Your task to perform on an android device: visit the assistant section in the google photos Image 0: 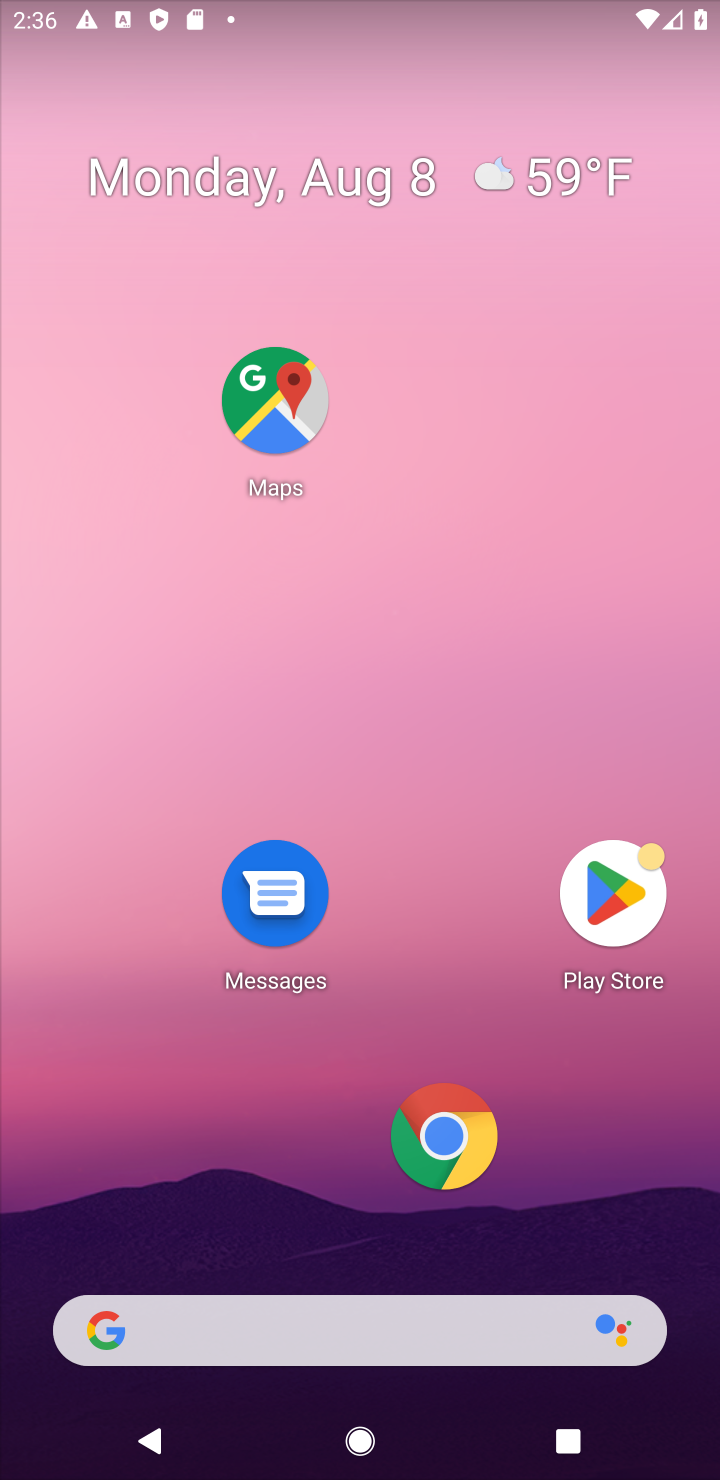
Step 0: drag from (64, 1427) to (387, 556)
Your task to perform on an android device: visit the assistant section in the google photos Image 1: 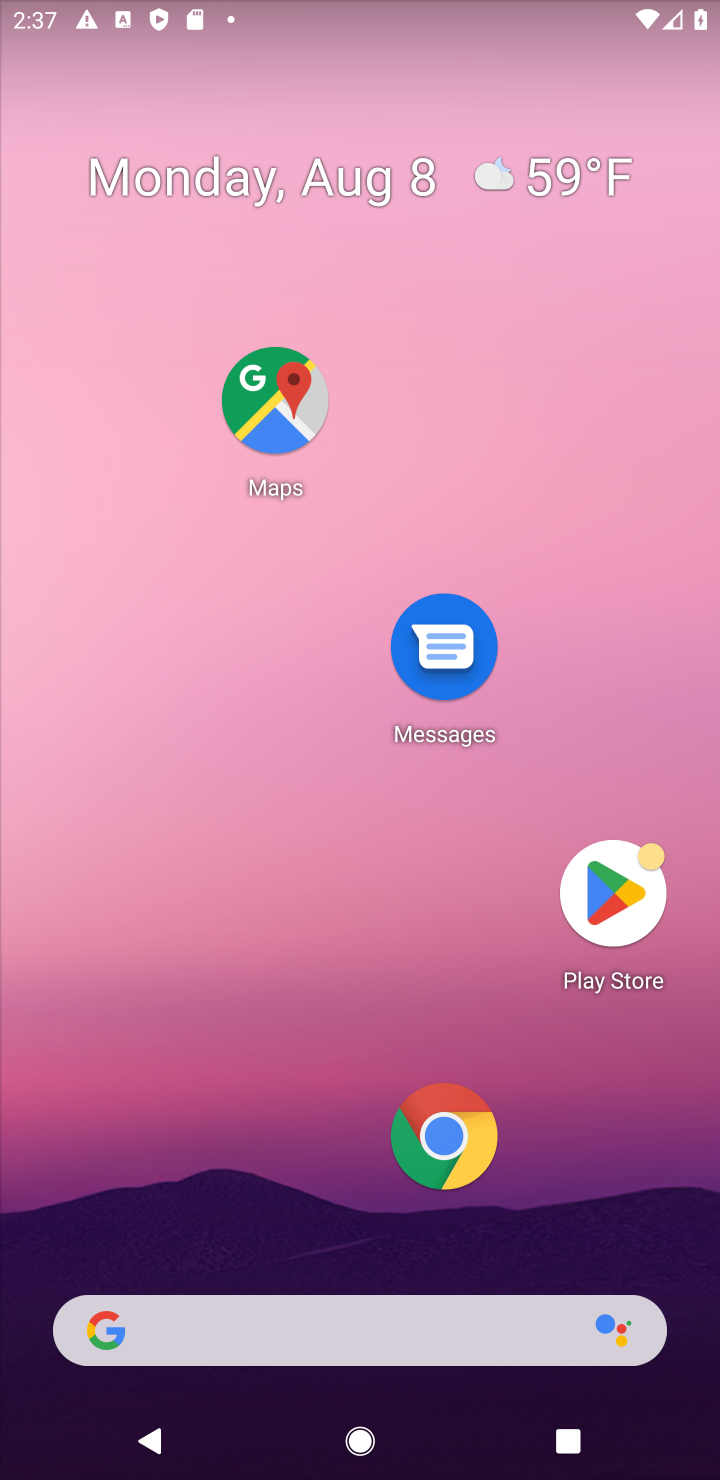
Step 1: drag from (128, 1261) to (508, 201)
Your task to perform on an android device: visit the assistant section in the google photos Image 2: 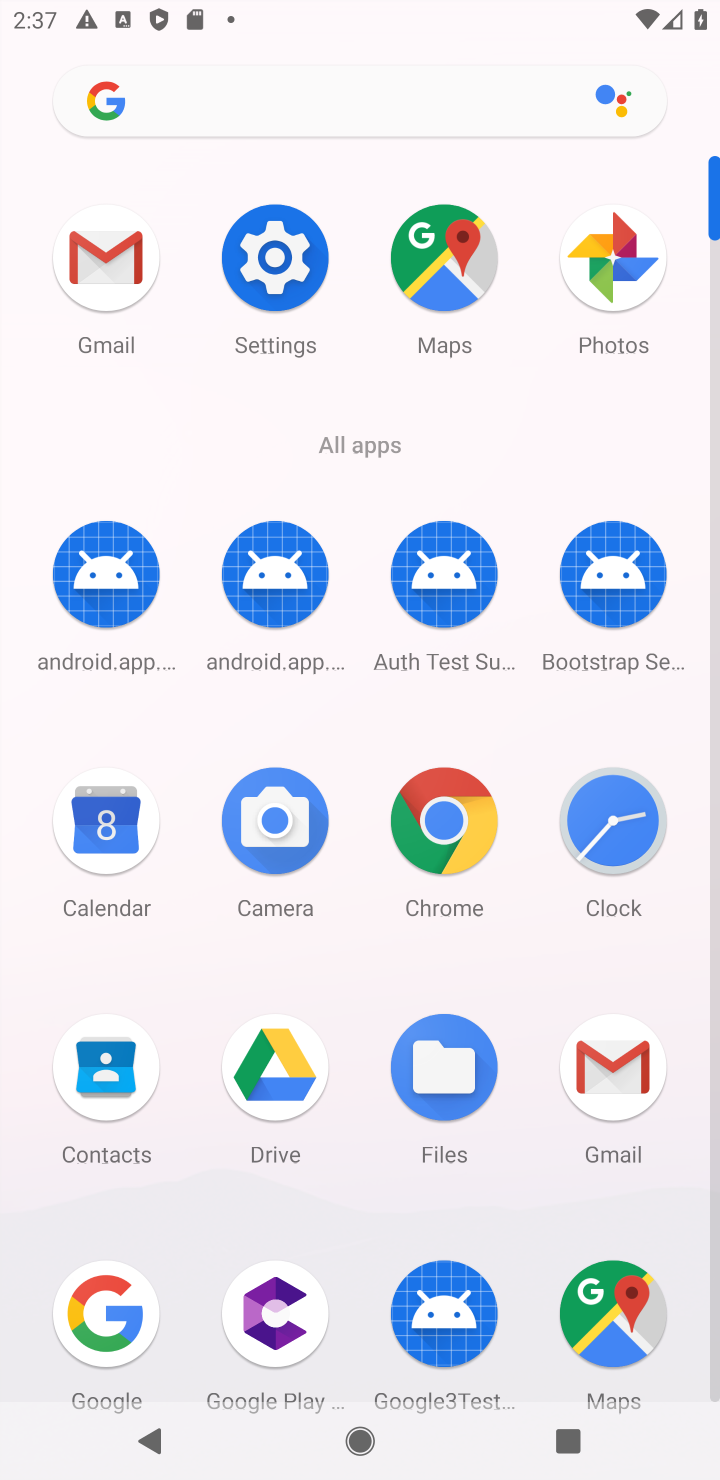
Step 2: click (605, 278)
Your task to perform on an android device: visit the assistant section in the google photos Image 3: 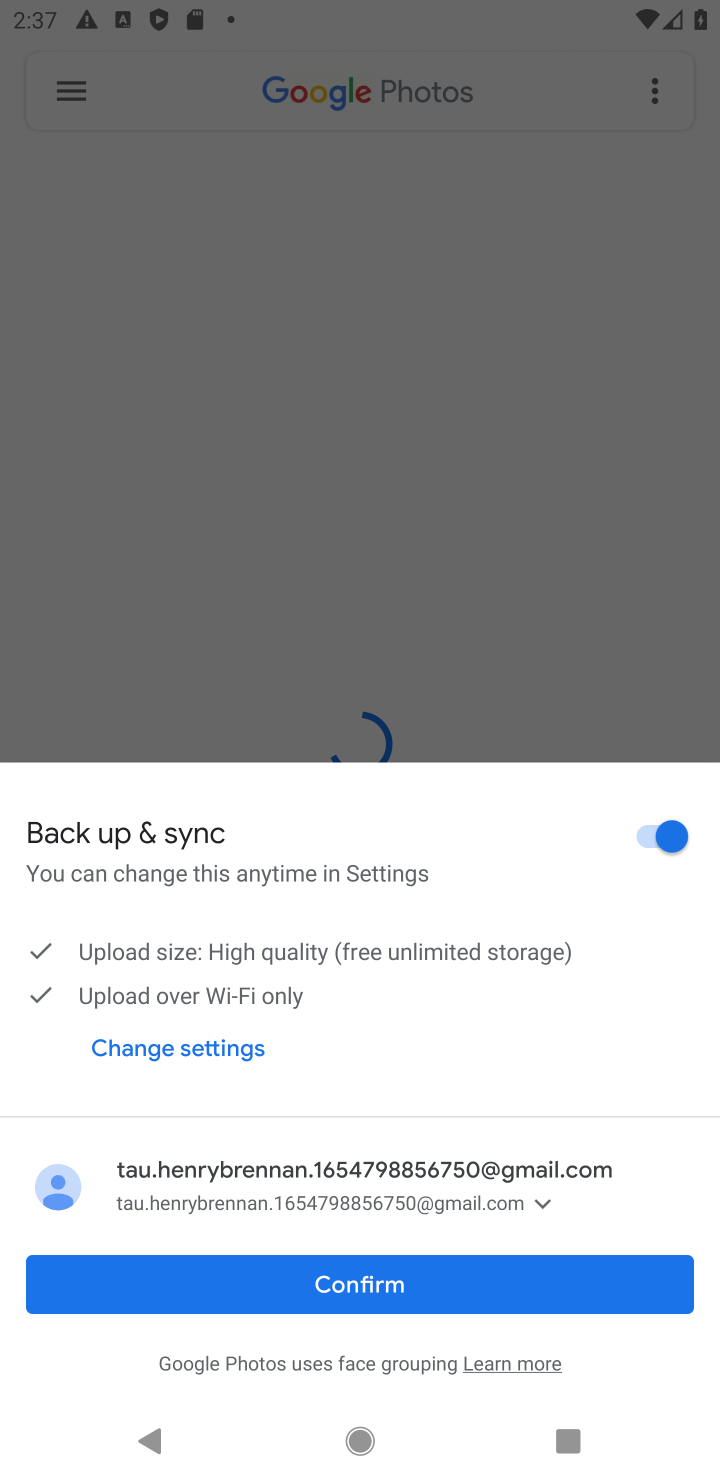
Step 3: click (406, 1255)
Your task to perform on an android device: visit the assistant section in the google photos Image 4: 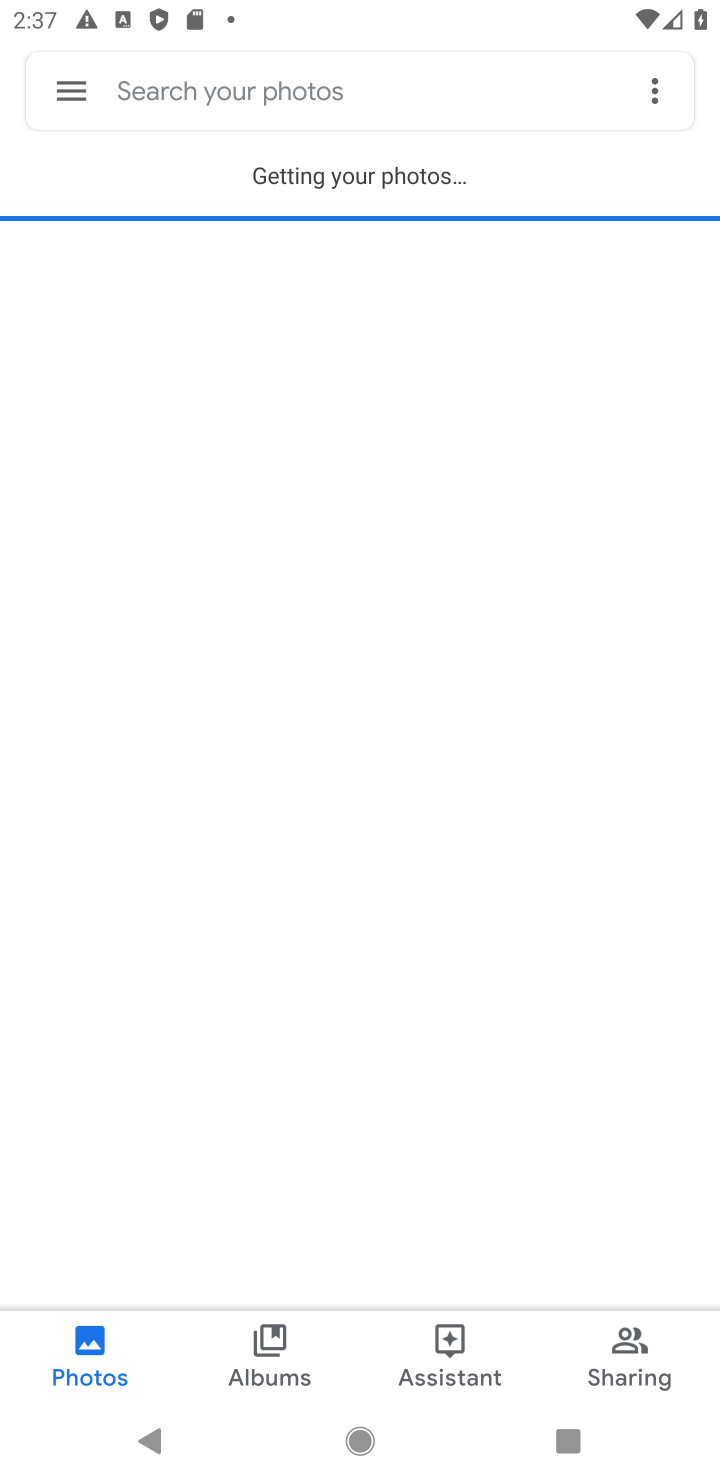
Step 4: click (484, 1355)
Your task to perform on an android device: visit the assistant section in the google photos Image 5: 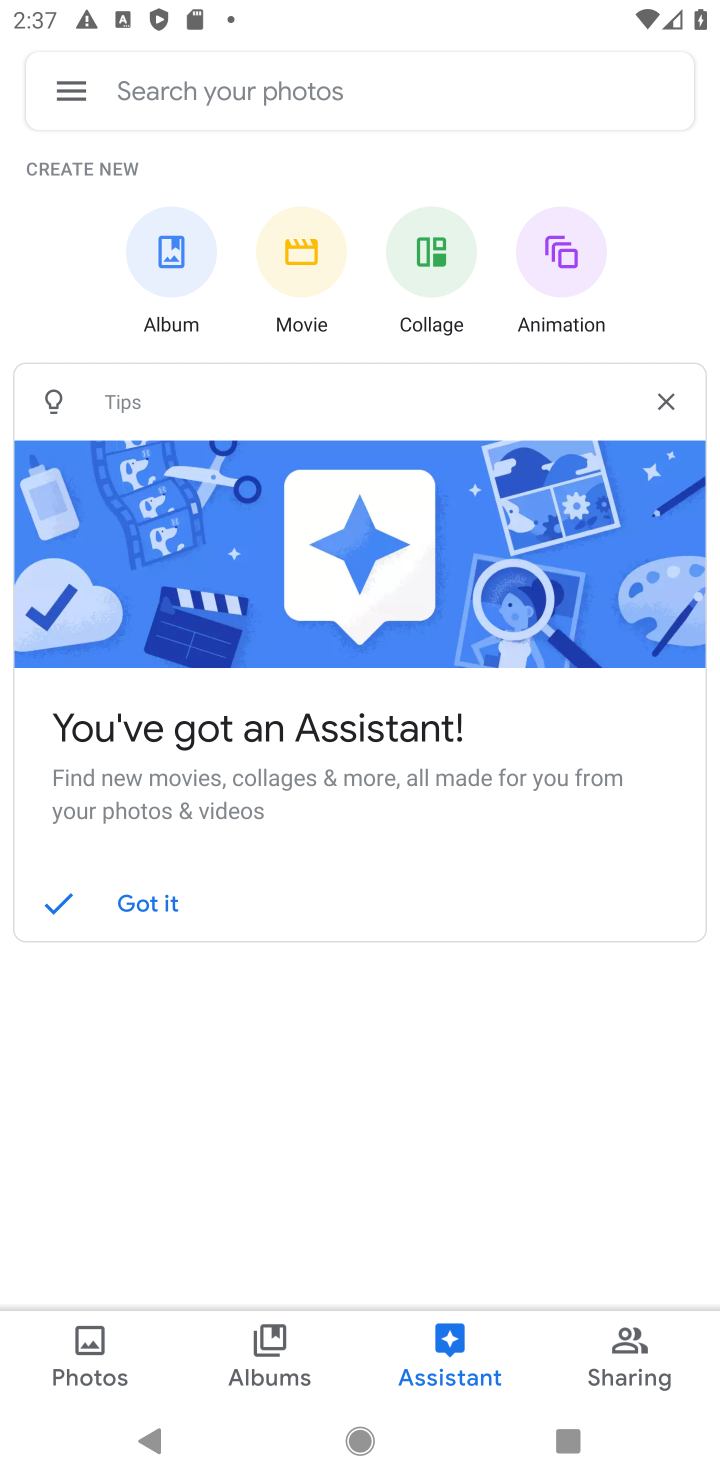
Step 5: task complete